Your task to perform on an android device: open a new tab in the chrome app Image 0: 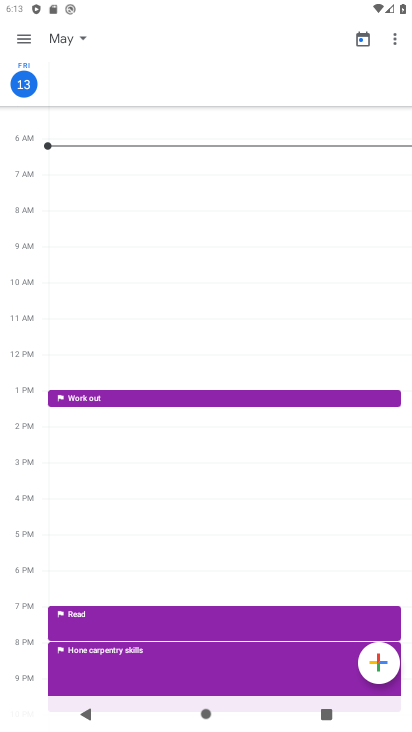
Step 0: drag from (215, 641) to (251, 271)
Your task to perform on an android device: open a new tab in the chrome app Image 1: 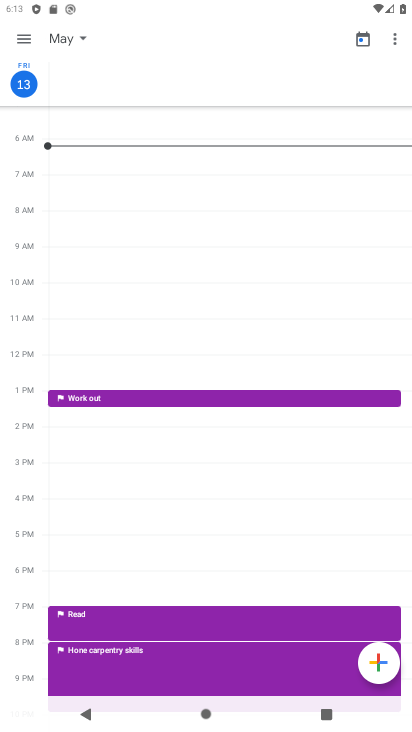
Step 1: press home button
Your task to perform on an android device: open a new tab in the chrome app Image 2: 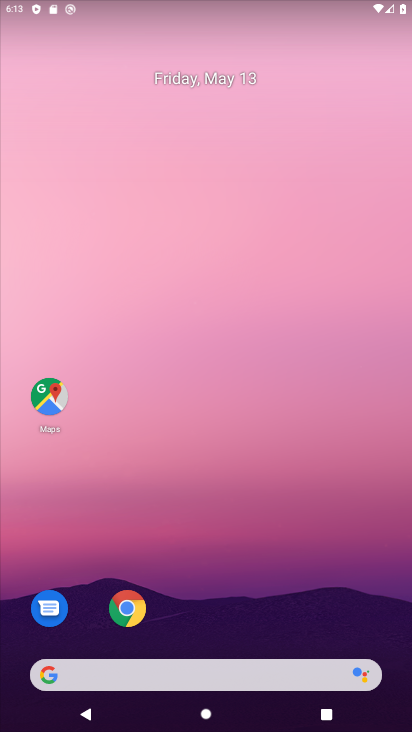
Step 2: click (129, 605)
Your task to perform on an android device: open a new tab in the chrome app Image 3: 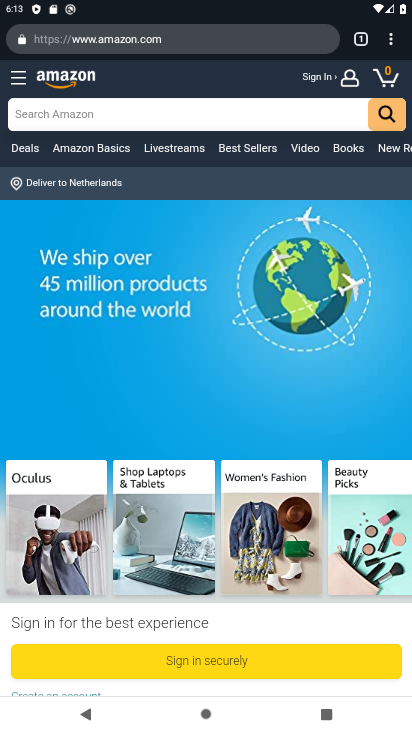
Step 3: click (393, 42)
Your task to perform on an android device: open a new tab in the chrome app Image 4: 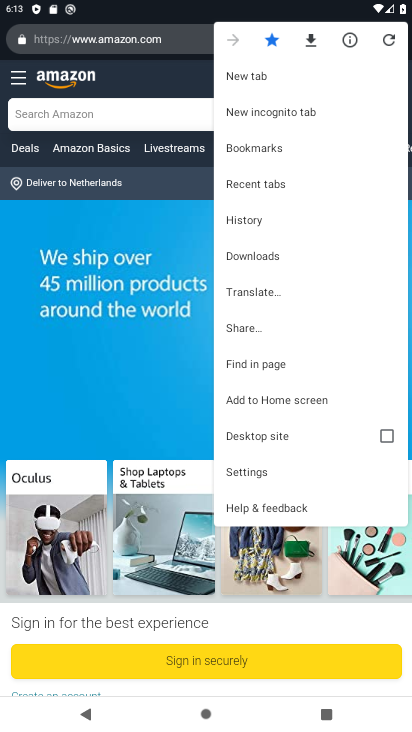
Step 4: click (262, 78)
Your task to perform on an android device: open a new tab in the chrome app Image 5: 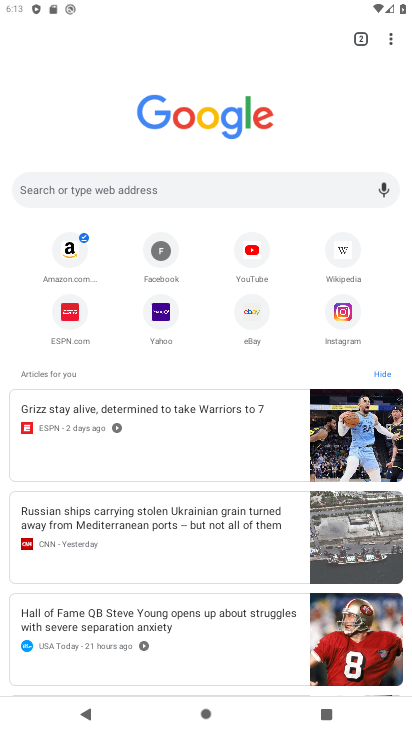
Step 5: task complete